Your task to perform on an android device: Go to CNN.com Image 0: 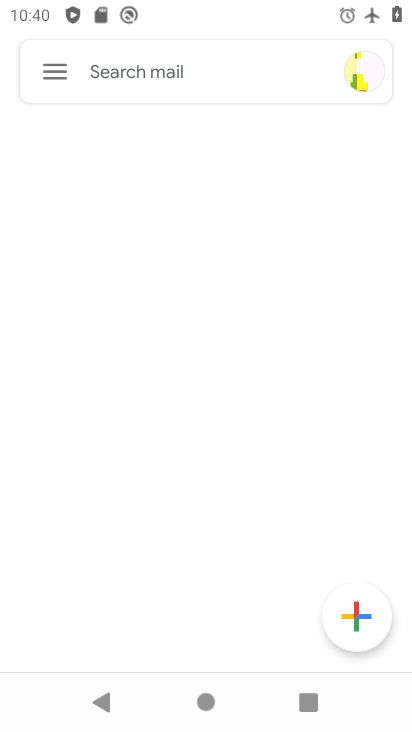
Step 0: press home button
Your task to perform on an android device: Go to CNN.com Image 1: 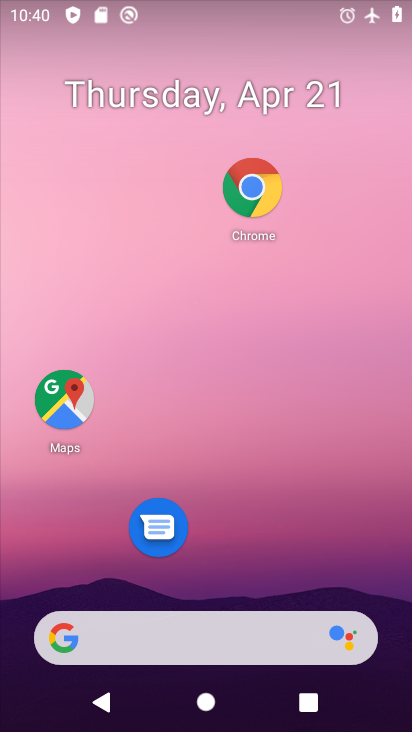
Step 1: drag from (243, 606) to (290, 119)
Your task to perform on an android device: Go to CNN.com Image 2: 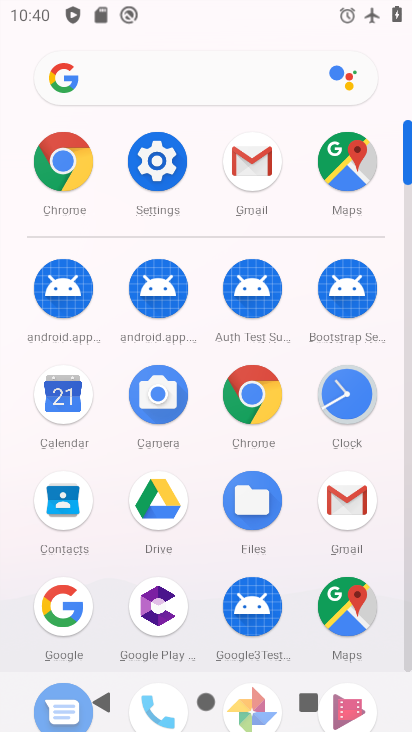
Step 2: click (257, 391)
Your task to perform on an android device: Go to CNN.com Image 3: 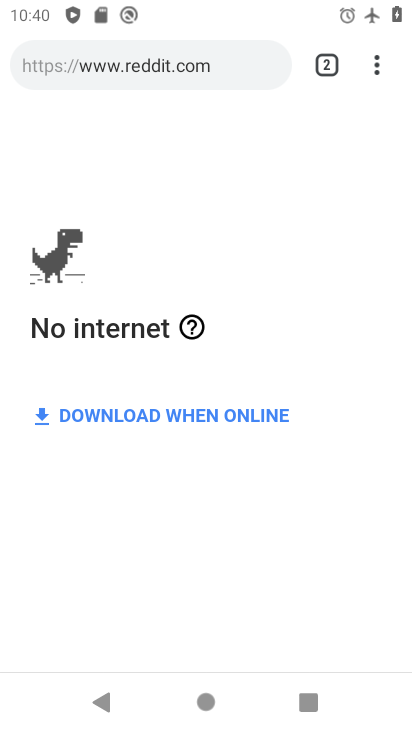
Step 3: click (239, 73)
Your task to perform on an android device: Go to CNN.com Image 4: 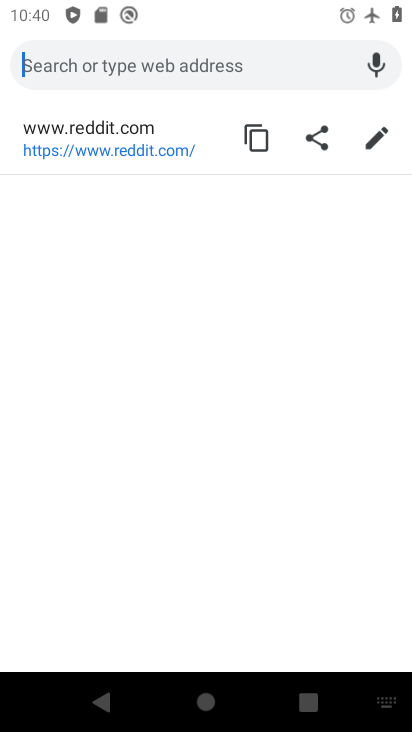
Step 4: type "cnn.com"
Your task to perform on an android device: Go to CNN.com Image 5: 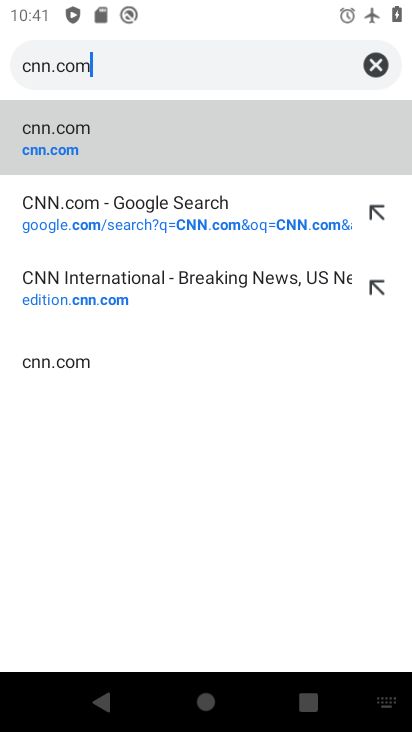
Step 5: click (224, 132)
Your task to perform on an android device: Go to CNN.com Image 6: 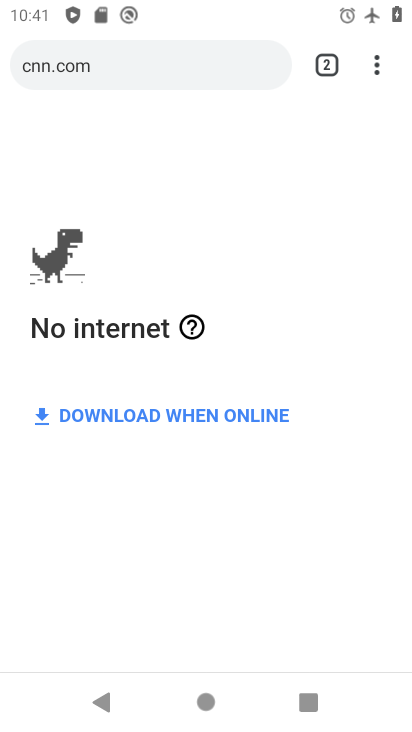
Step 6: task complete